Your task to perform on an android device: Show me popular games on the Play Store Image 0: 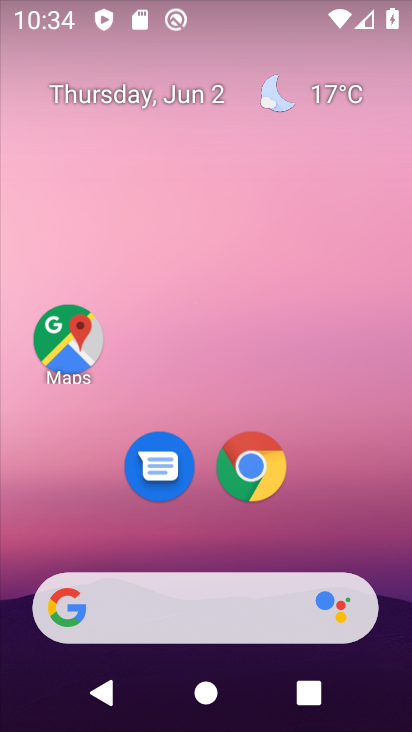
Step 0: drag from (311, 528) to (242, 87)
Your task to perform on an android device: Show me popular games on the Play Store Image 1: 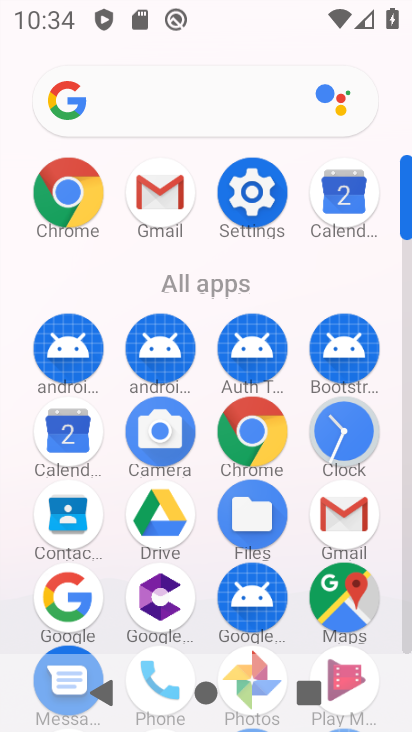
Step 1: drag from (118, 476) to (126, 152)
Your task to perform on an android device: Show me popular games on the Play Store Image 2: 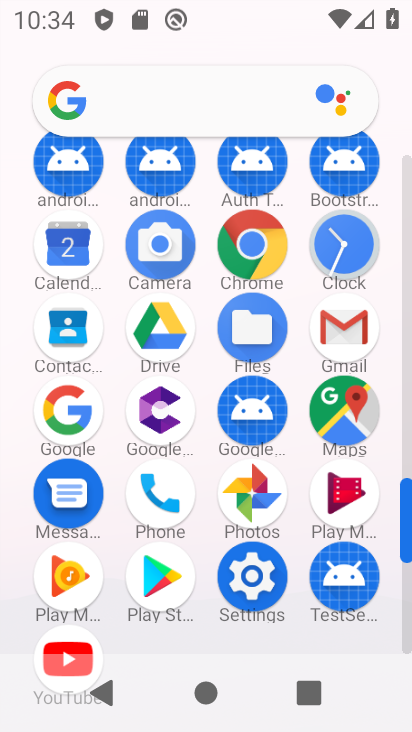
Step 2: click (152, 581)
Your task to perform on an android device: Show me popular games on the Play Store Image 3: 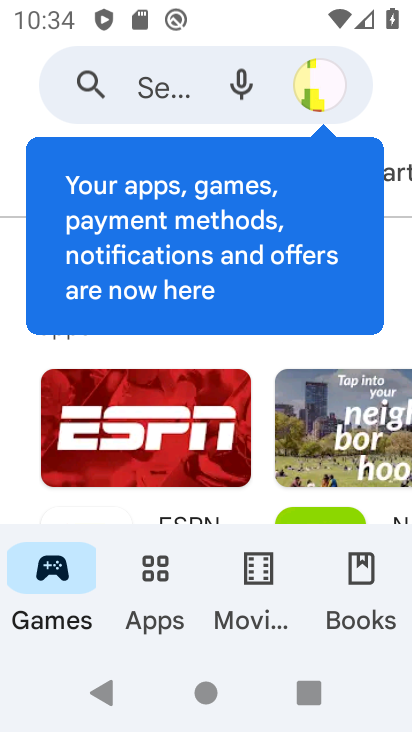
Step 3: click (67, 568)
Your task to perform on an android device: Show me popular games on the Play Store Image 4: 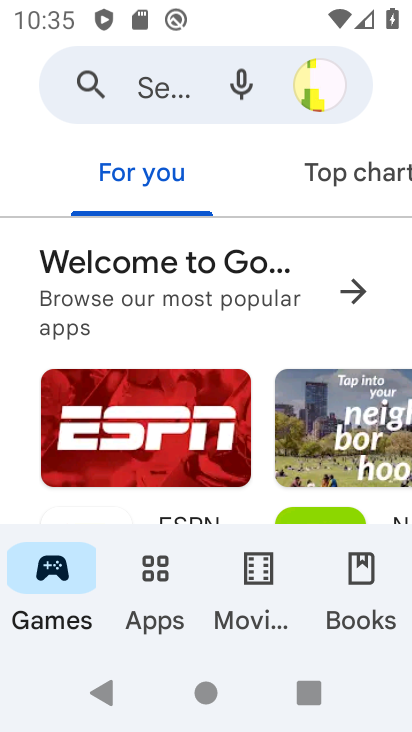
Step 4: drag from (200, 562) to (163, 81)
Your task to perform on an android device: Show me popular games on the Play Store Image 5: 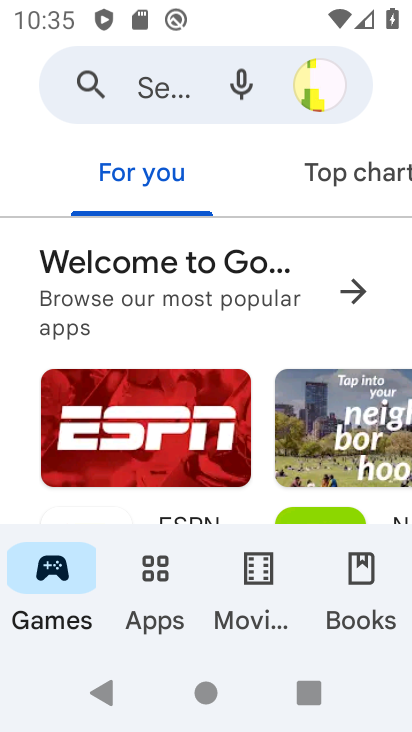
Step 5: drag from (129, 538) to (120, 243)
Your task to perform on an android device: Show me popular games on the Play Store Image 6: 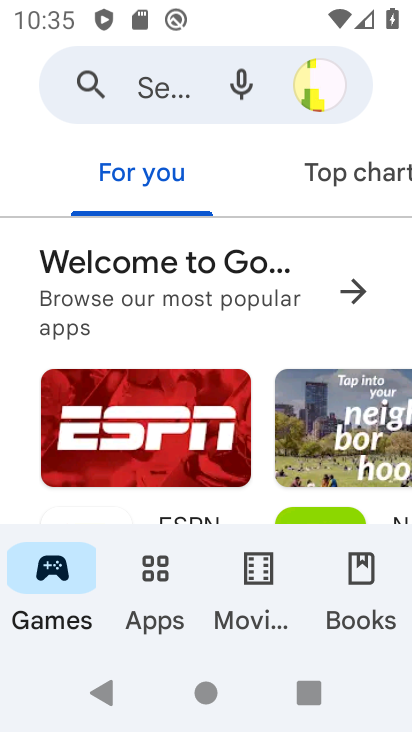
Step 6: drag from (355, 189) to (0, 198)
Your task to perform on an android device: Show me popular games on the Play Store Image 7: 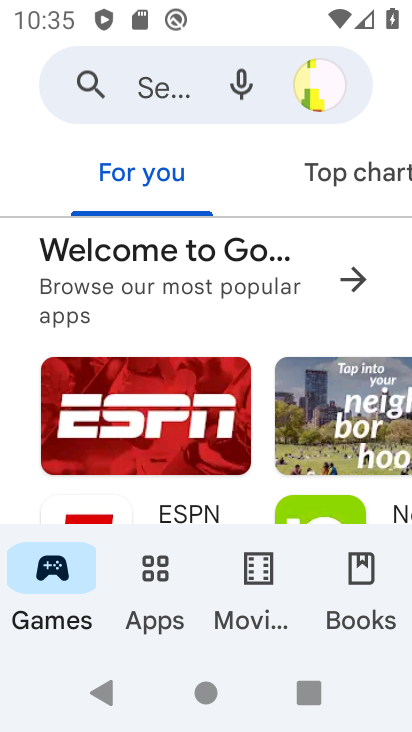
Step 7: drag from (378, 182) to (11, 175)
Your task to perform on an android device: Show me popular games on the Play Store Image 8: 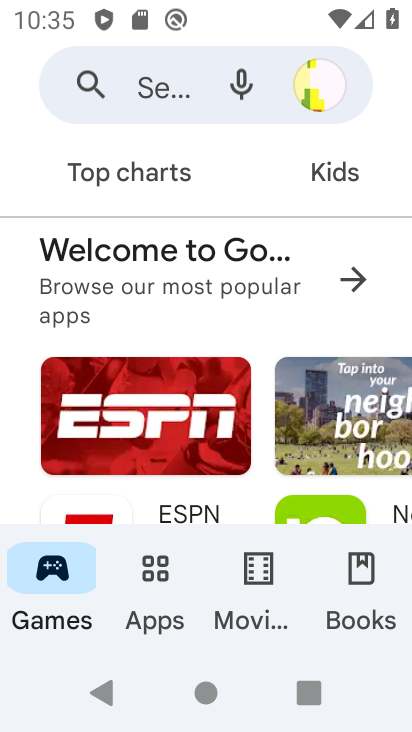
Step 8: drag from (395, 192) to (97, 206)
Your task to perform on an android device: Show me popular games on the Play Store Image 9: 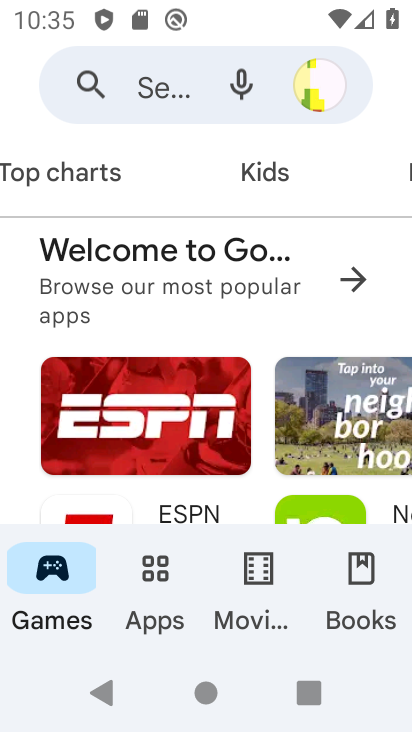
Step 9: drag from (374, 176) to (91, 200)
Your task to perform on an android device: Show me popular games on the Play Store Image 10: 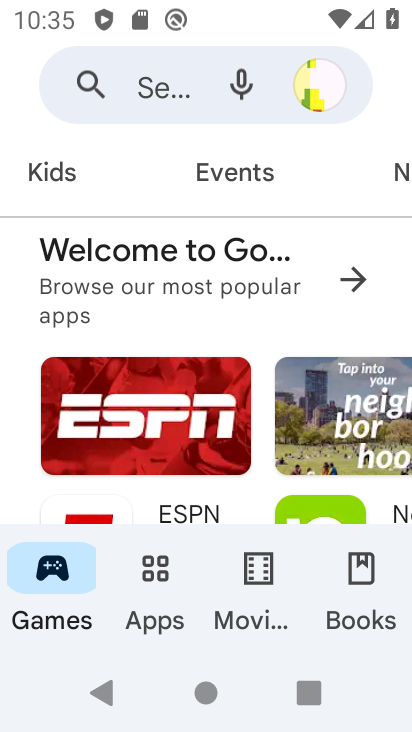
Step 10: drag from (364, 199) to (0, 212)
Your task to perform on an android device: Show me popular games on the Play Store Image 11: 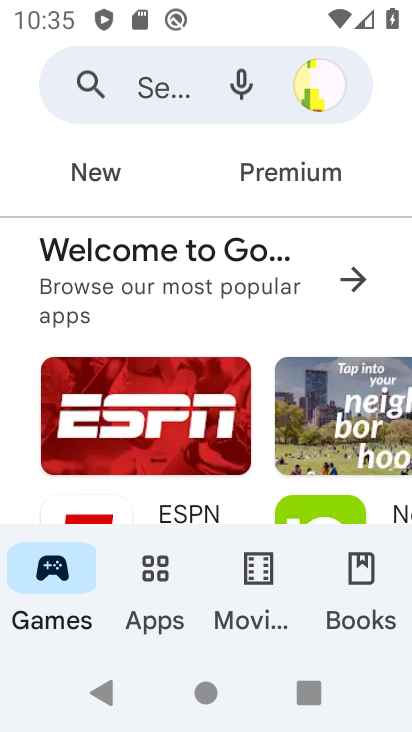
Step 11: drag from (381, 178) to (94, 192)
Your task to perform on an android device: Show me popular games on the Play Store Image 12: 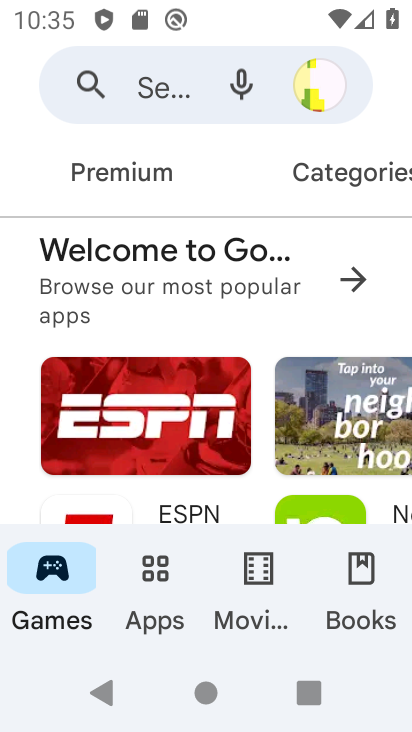
Step 12: click (356, 172)
Your task to perform on an android device: Show me popular games on the Play Store Image 13: 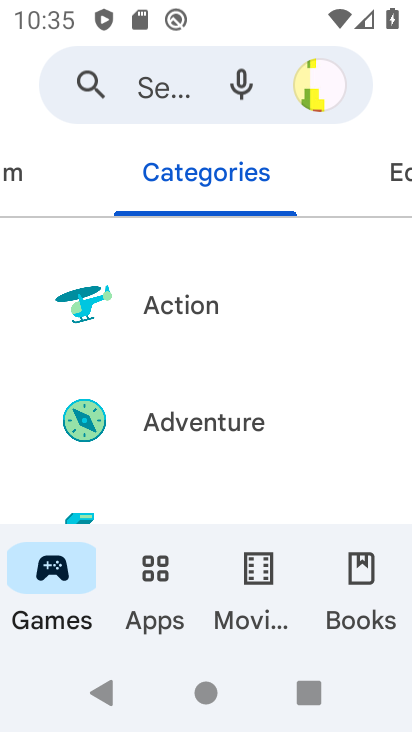
Step 13: task complete